Your task to perform on an android device: change notifications settings Image 0: 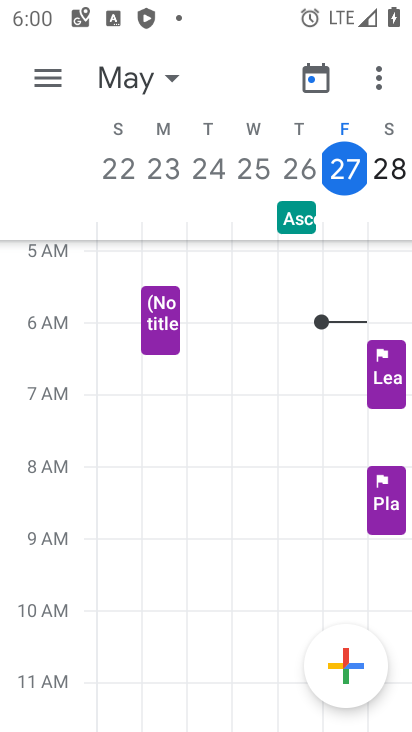
Step 0: press home button
Your task to perform on an android device: change notifications settings Image 1: 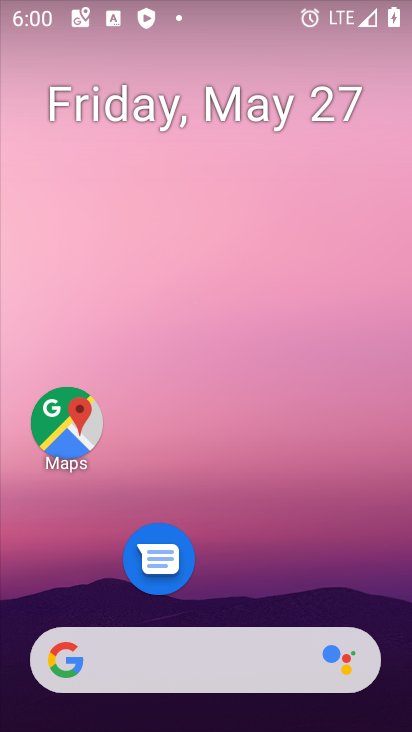
Step 1: drag from (284, 686) to (218, 114)
Your task to perform on an android device: change notifications settings Image 2: 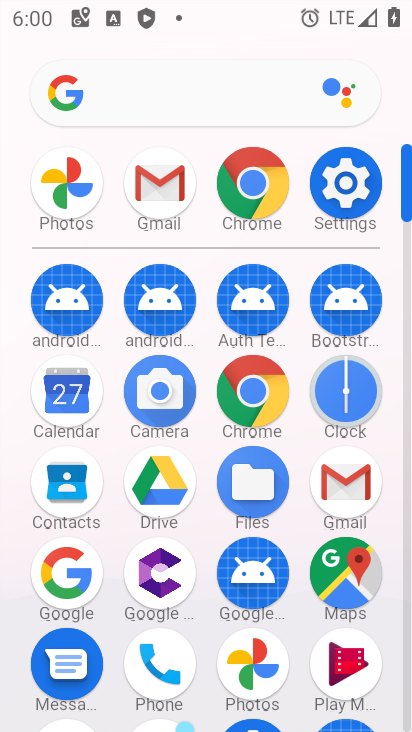
Step 2: click (340, 182)
Your task to perform on an android device: change notifications settings Image 3: 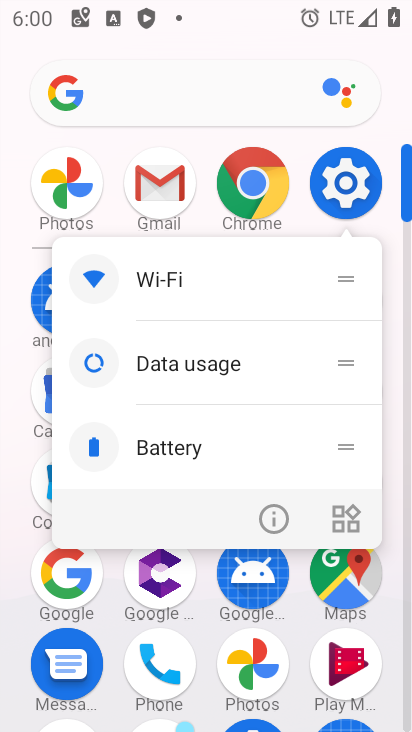
Step 3: click (350, 192)
Your task to perform on an android device: change notifications settings Image 4: 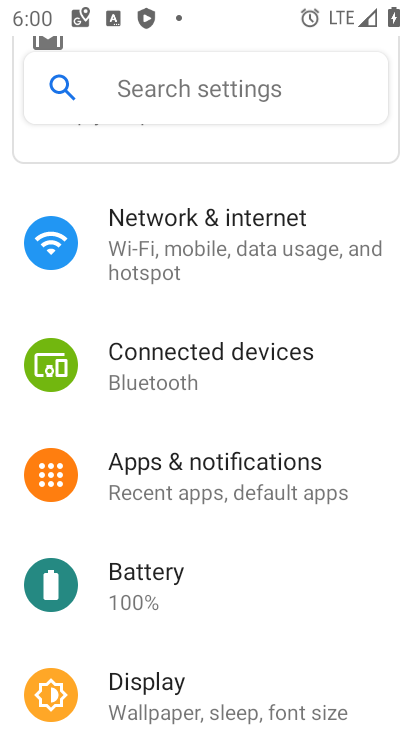
Step 4: click (307, 469)
Your task to perform on an android device: change notifications settings Image 5: 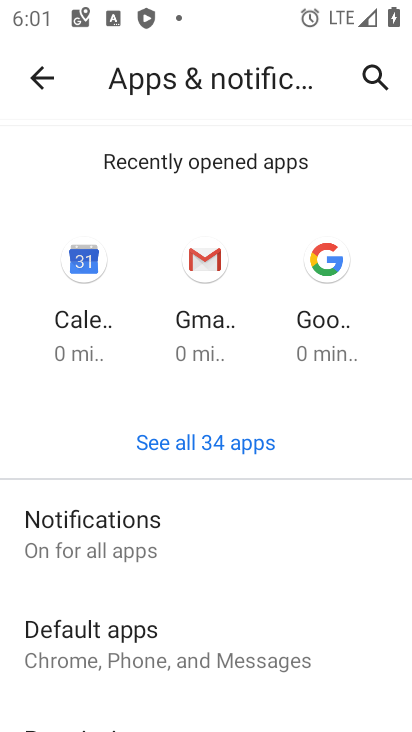
Step 5: click (166, 524)
Your task to perform on an android device: change notifications settings Image 6: 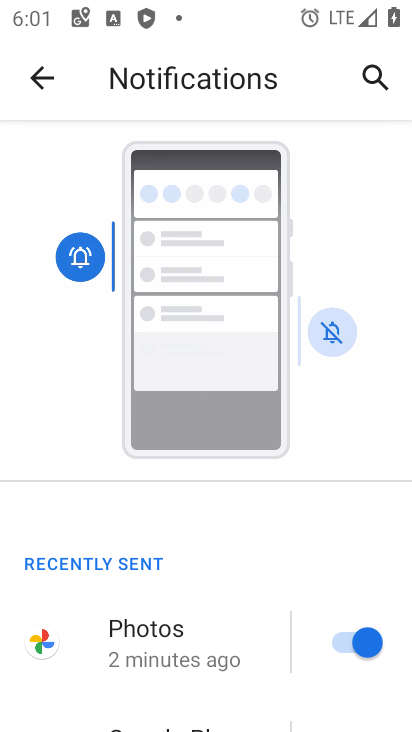
Step 6: drag from (286, 692) to (332, 149)
Your task to perform on an android device: change notifications settings Image 7: 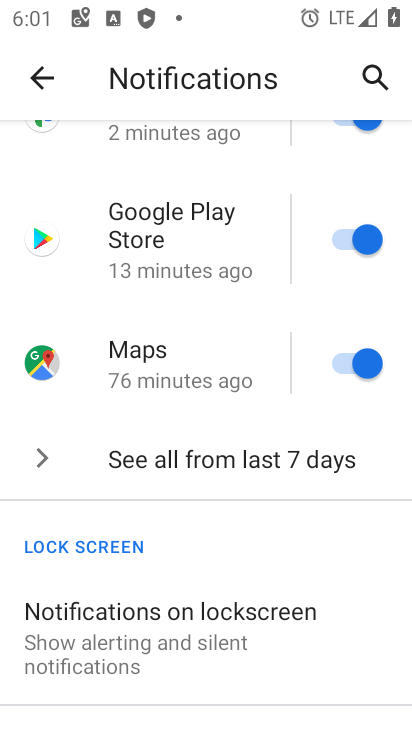
Step 7: click (352, 360)
Your task to perform on an android device: change notifications settings Image 8: 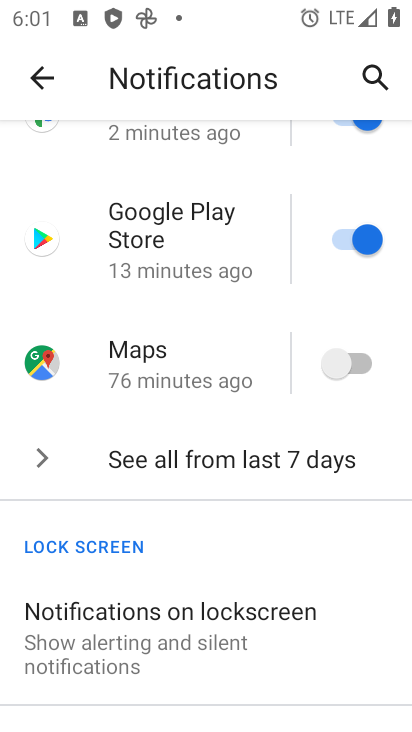
Step 8: task complete